Your task to perform on an android device: turn on data saver in the chrome app Image 0: 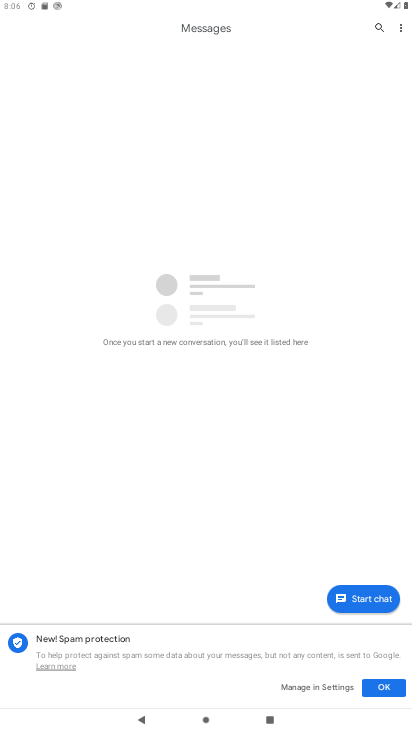
Step 0: press home button
Your task to perform on an android device: turn on data saver in the chrome app Image 1: 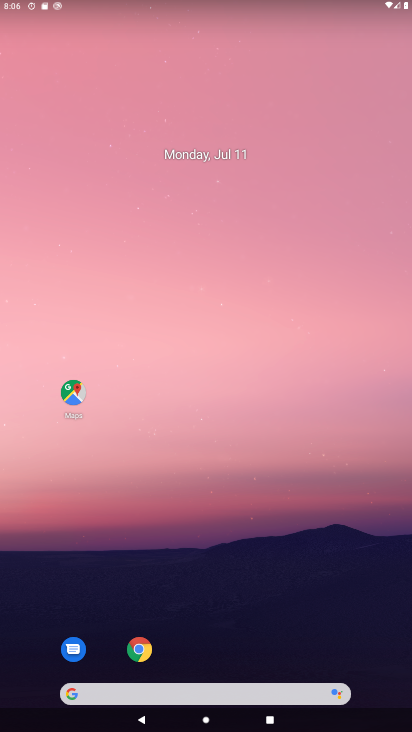
Step 1: click (142, 647)
Your task to perform on an android device: turn on data saver in the chrome app Image 2: 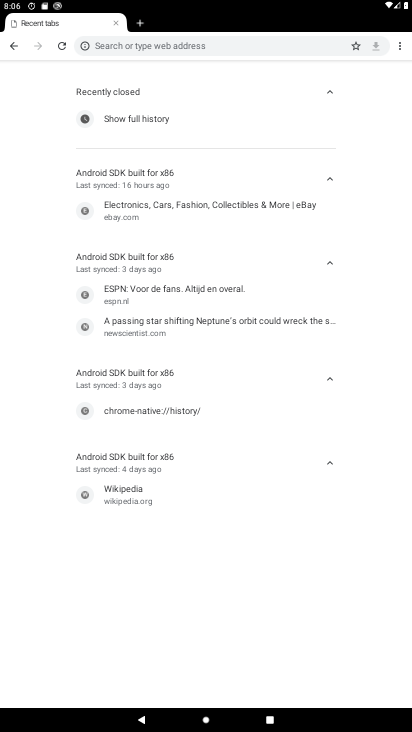
Step 2: click (394, 51)
Your task to perform on an android device: turn on data saver in the chrome app Image 3: 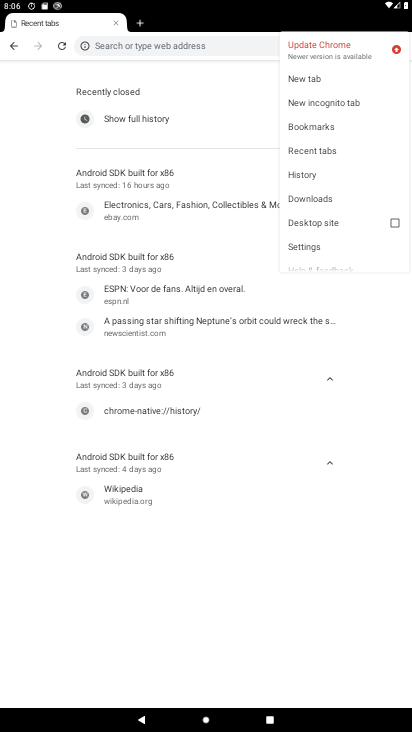
Step 3: click (311, 246)
Your task to perform on an android device: turn on data saver in the chrome app Image 4: 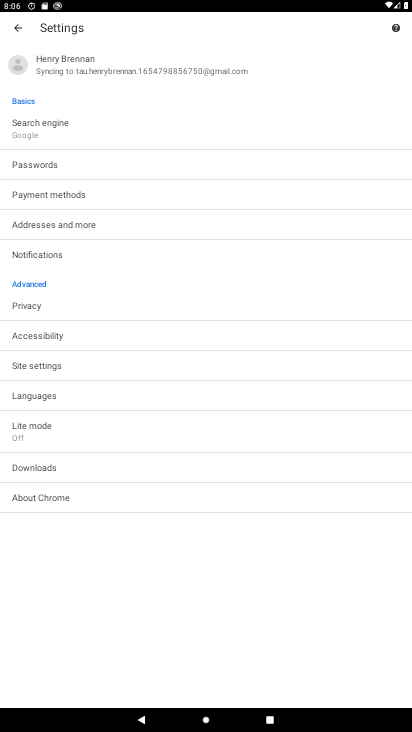
Step 4: click (162, 427)
Your task to perform on an android device: turn on data saver in the chrome app Image 5: 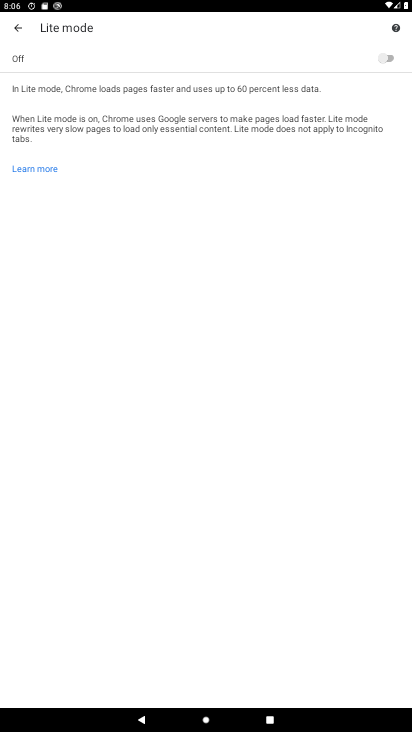
Step 5: click (385, 68)
Your task to perform on an android device: turn on data saver in the chrome app Image 6: 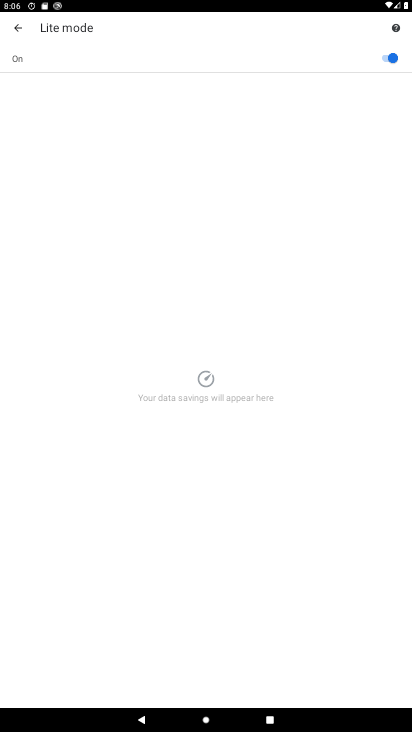
Step 6: task complete